Your task to perform on an android device: Open calendar and show me the third week of next month Image 0: 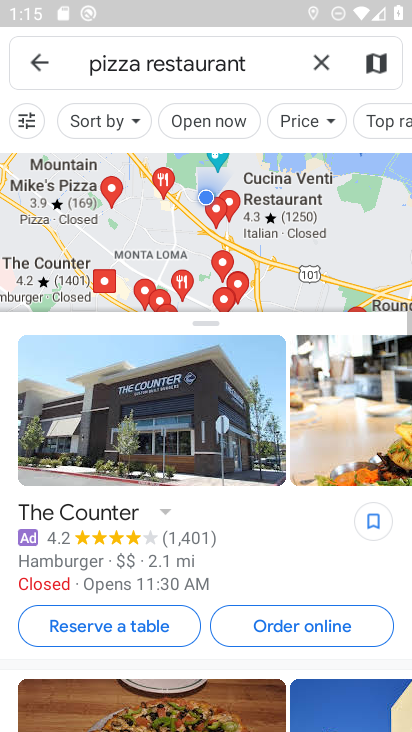
Step 0: press home button
Your task to perform on an android device: Open calendar and show me the third week of next month Image 1: 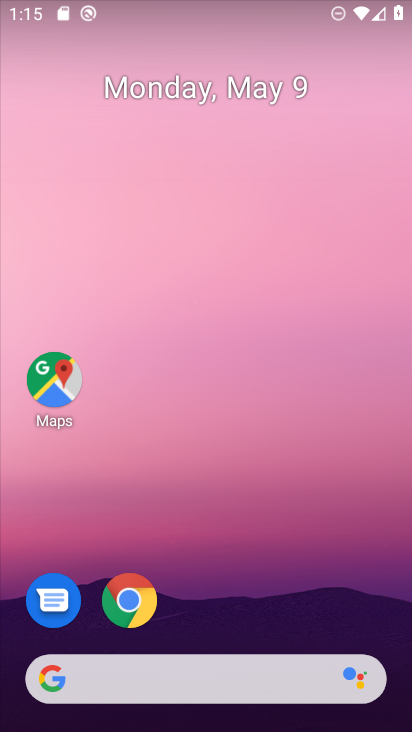
Step 1: drag from (165, 665) to (287, 193)
Your task to perform on an android device: Open calendar and show me the third week of next month Image 2: 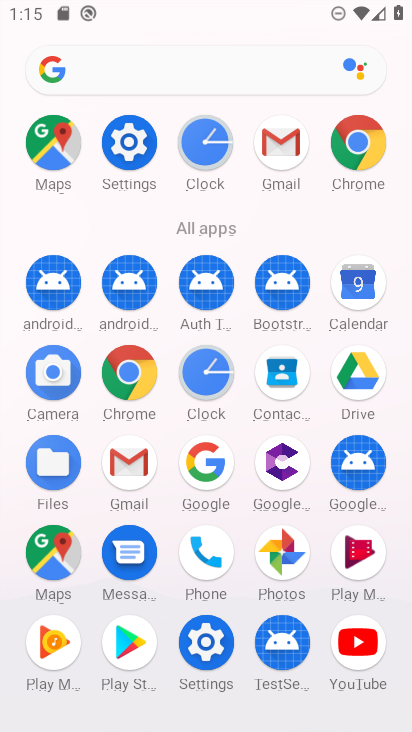
Step 2: click (365, 296)
Your task to perform on an android device: Open calendar and show me the third week of next month Image 3: 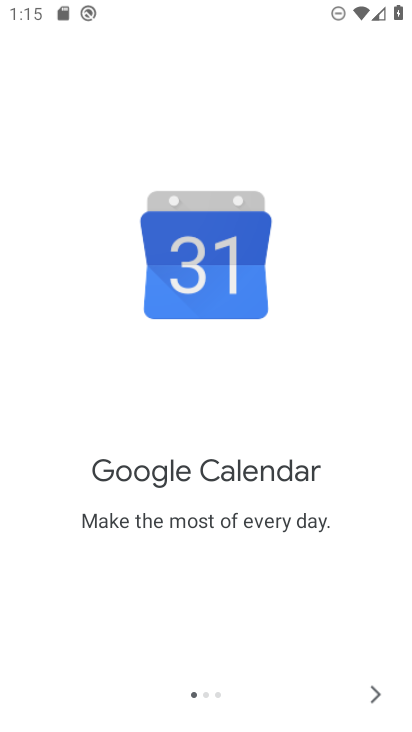
Step 3: click (371, 686)
Your task to perform on an android device: Open calendar and show me the third week of next month Image 4: 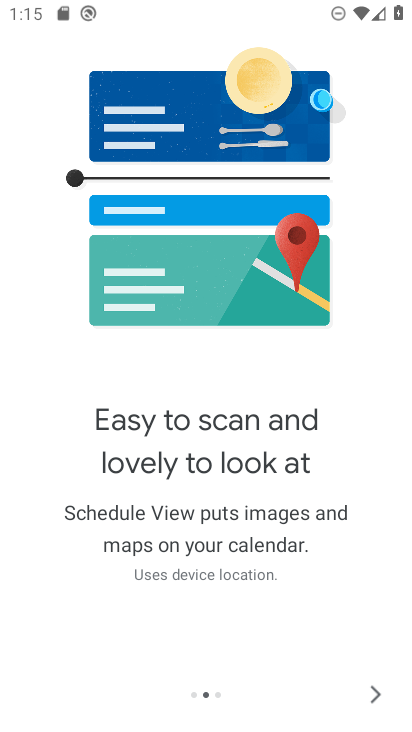
Step 4: click (371, 686)
Your task to perform on an android device: Open calendar and show me the third week of next month Image 5: 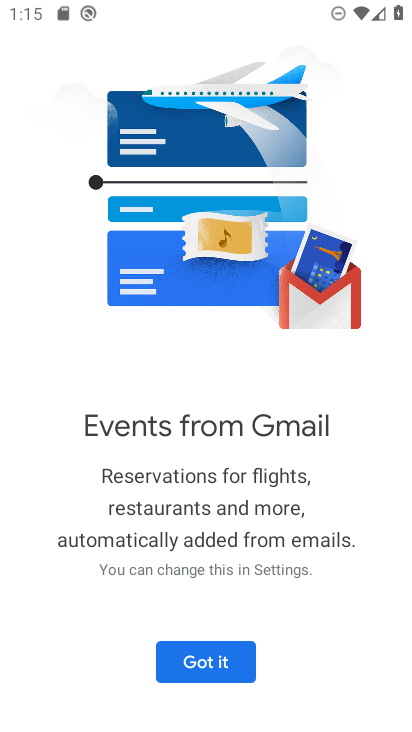
Step 5: click (232, 670)
Your task to perform on an android device: Open calendar and show me the third week of next month Image 6: 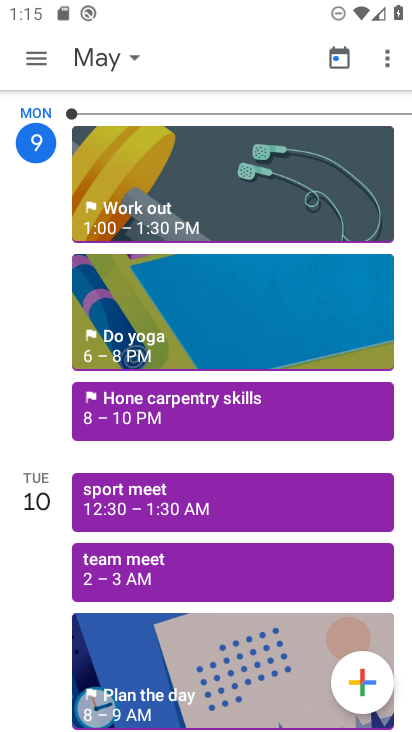
Step 6: click (99, 57)
Your task to perform on an android device: Open calendar and show me the third week of next month Image 7: 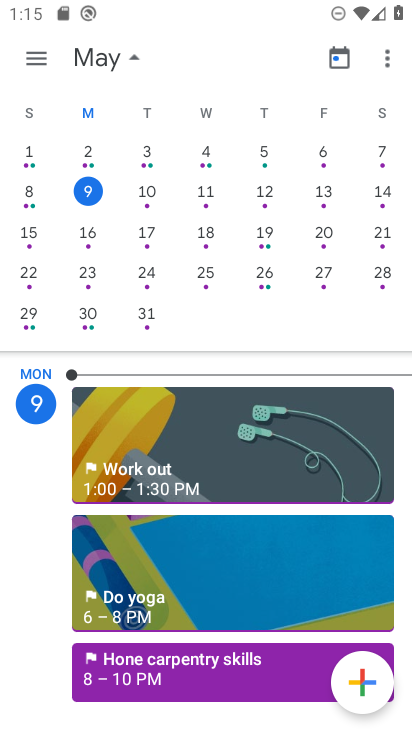
Step 7: drag from (362, 251) to (2, 150)
Your task to perform on an android device: Open calendar and show me the third week of next month Image 8: 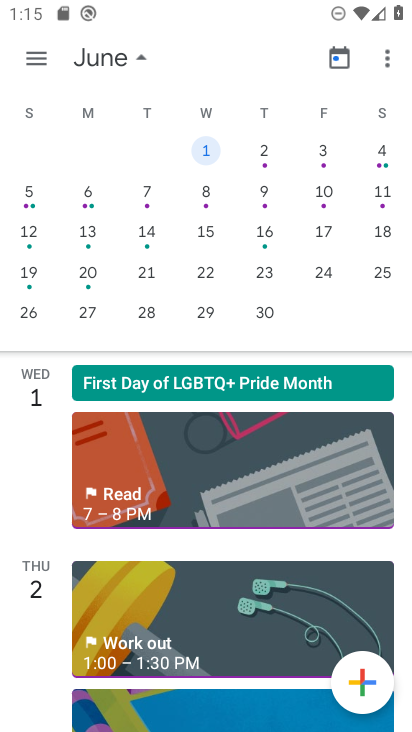
Step 8: click (32, 224)
Your task to perform on an android device: Open calendar and show me the third week of next month Image 9: 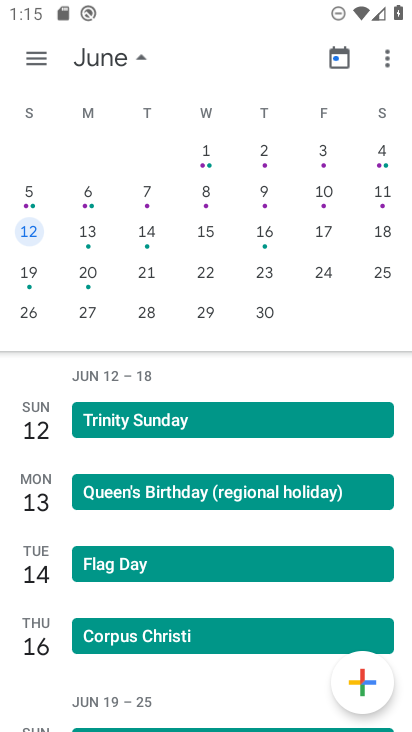
Step 9: click (36, 57)
Your task to perform on an android device: Open calendar and show me the third week of next month Image 10: 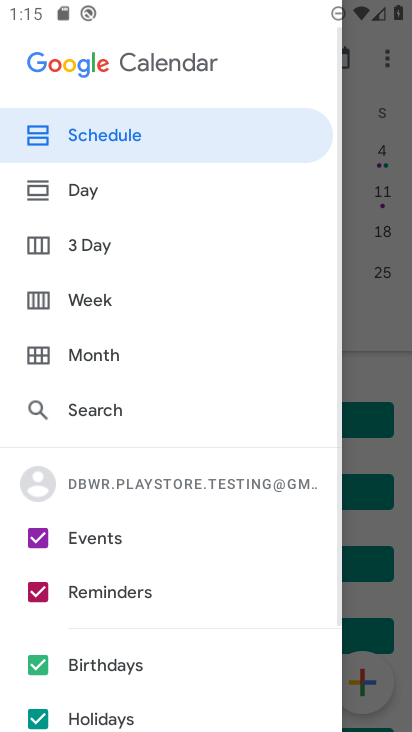
Step 10: click (102, 301)
Your task to perform on an android device: Open calendar and show me the third week of next month Image 11: 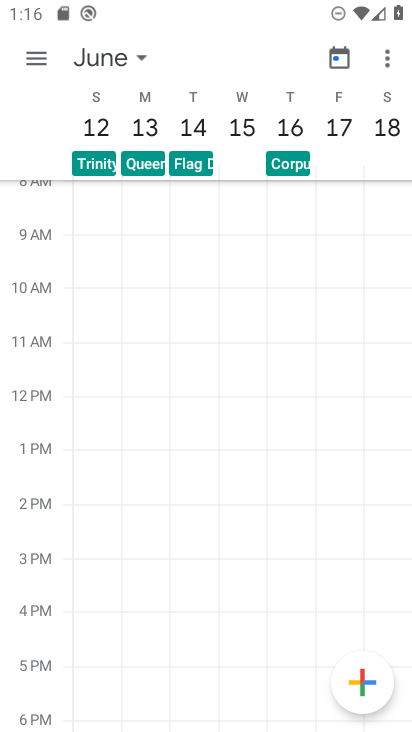
Step 11: task complete